Your task to perform on an android device: move a message to another label in the gmail app Image 0: 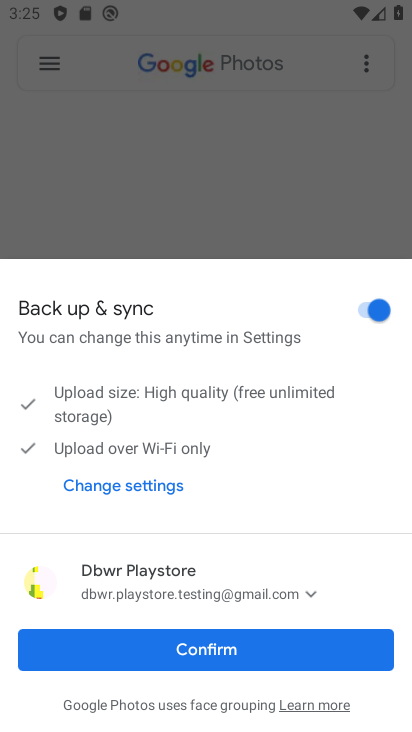
Step 0: press home button
Your task to perform on an android device: move a message to another label in the gmail app Image 1: 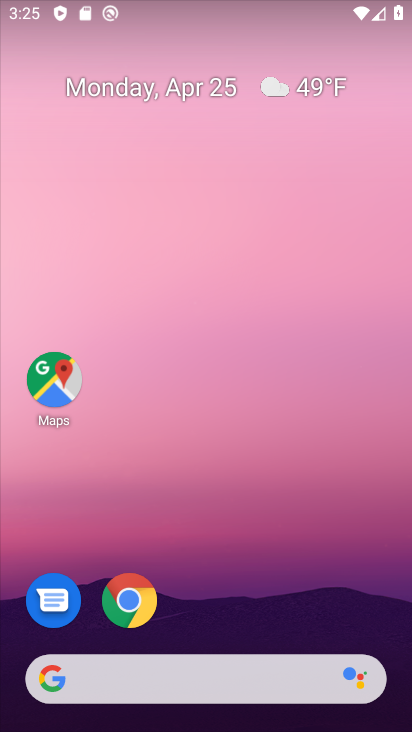
Step 1: drag from (280, 572) to (317, 53)
Your task to perform on an android device: move a message to another label in the gmail app Image 2: 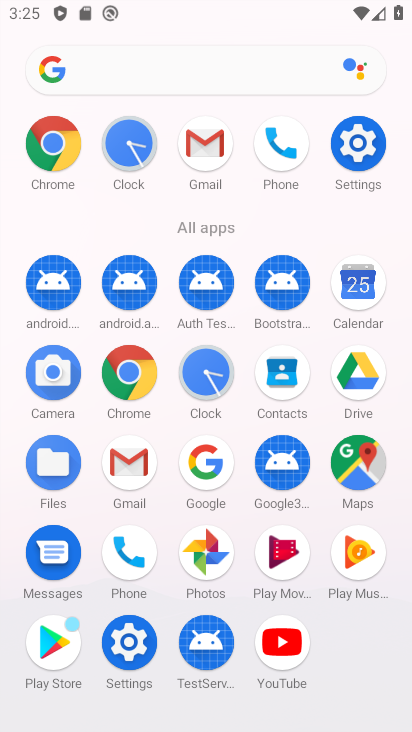
Step 2: click (208, 138)
Your task to perform on an android device: move a message to another label in the gmail app Image 3: 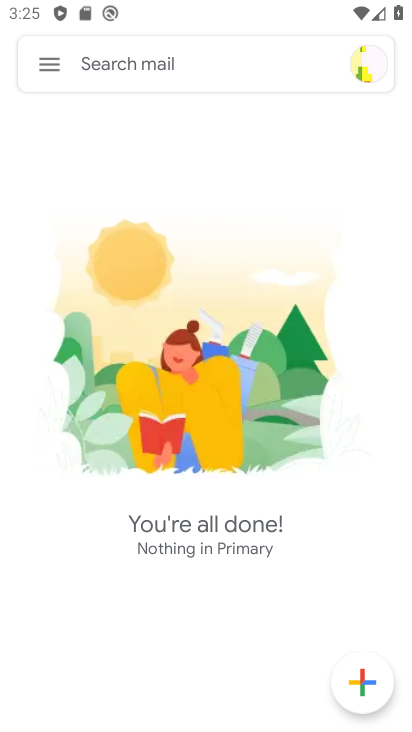
Step 3: click (48, 63)
Your task to perform on an android device: move a message to another label in the gmail app Image 4: 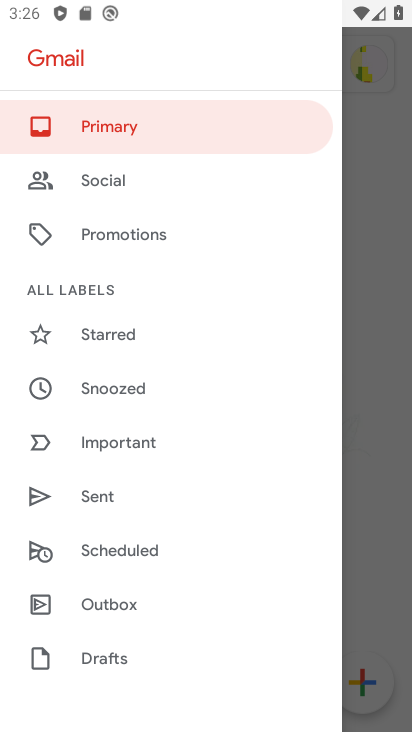
Step 4: drag from (162, 587) to (208, 276)
Your task to perform on an android device: move a message to another label in the gmail app Image 5: 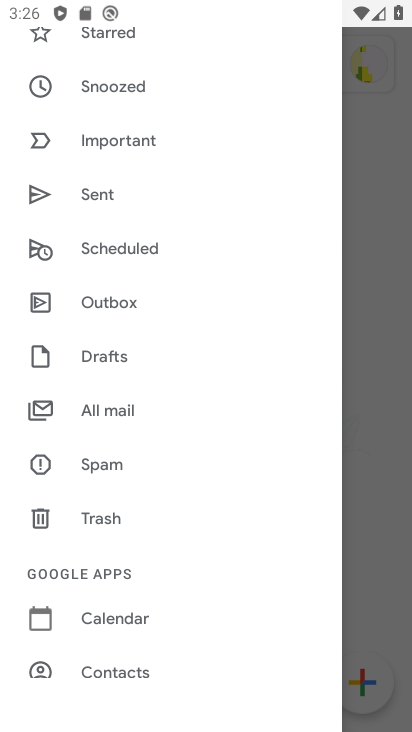
Step 5: click (177, 405)
Your task to perform on an android device: move a message to another label in the gmail app Image 6: 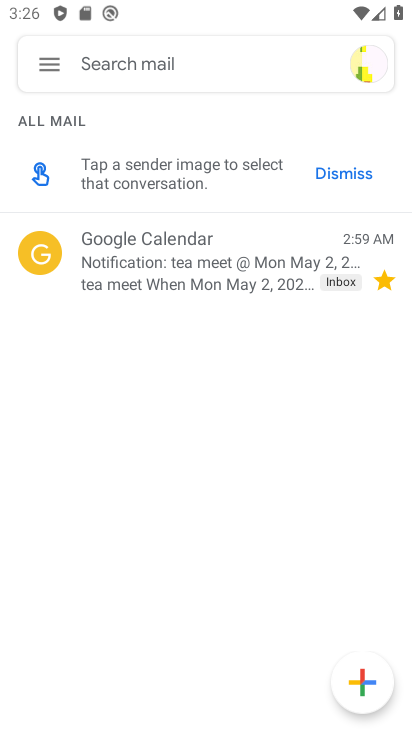
Step 6: click (187, 260)
Your task to perform on an android device: move a message to another label in the gmail app Image 7: 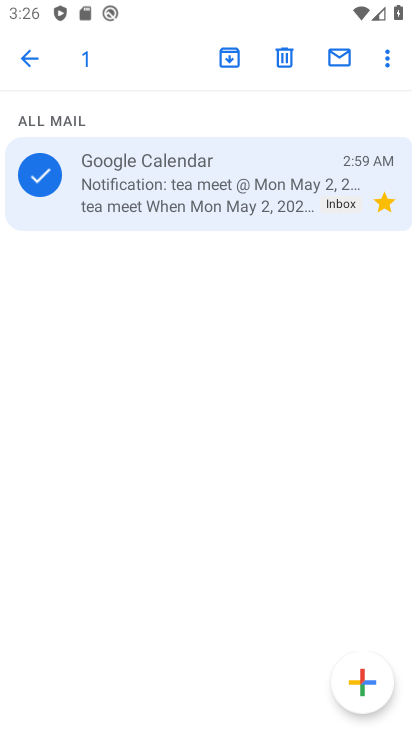
Step 7: click (384, 52)
Your task to perform on an android device: move a message to another label in the gmail app Image 8: 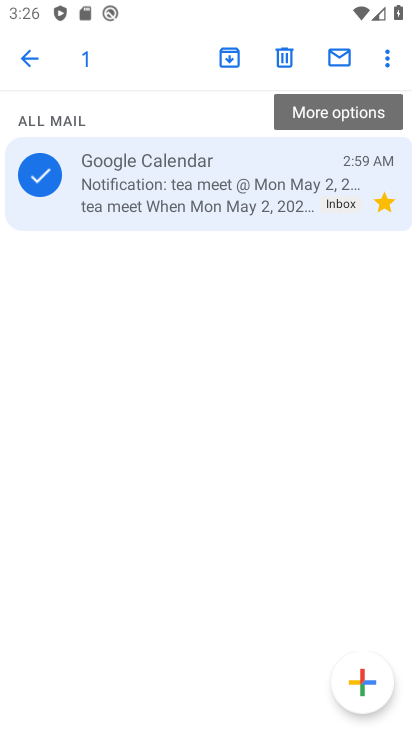
Step 8: click (375, 114)
Your task to perform on an android device: move a message to another label in the gmail app Image 9: 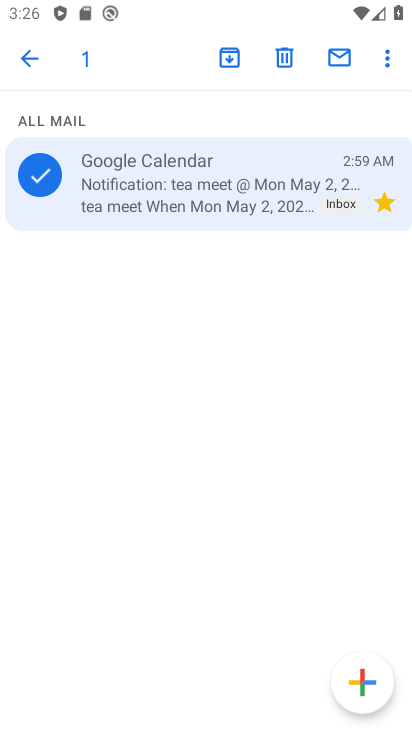
Step 9: drag from (384, 62) to (368, 108)
Your task to perform on an android device: move a message to another label in the gmail app Image 10: 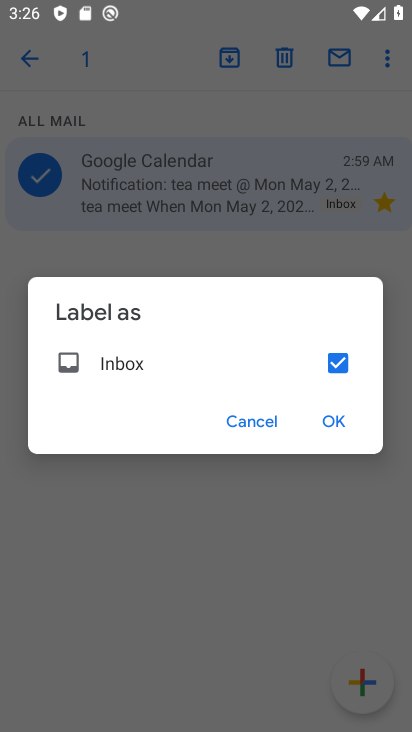
Step 10: click (333, 416)
Your task to perform on an android device: move a message to another label in the gmail app Image 11: 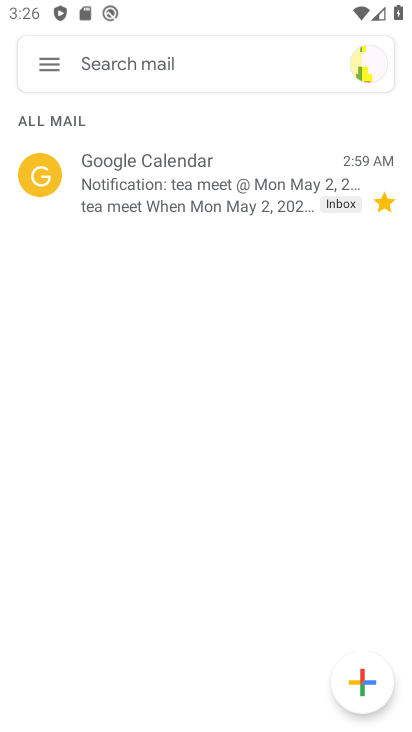
Step 11: task complete